Your task to perform on an android device: change the clock display to show seconds Image 0: 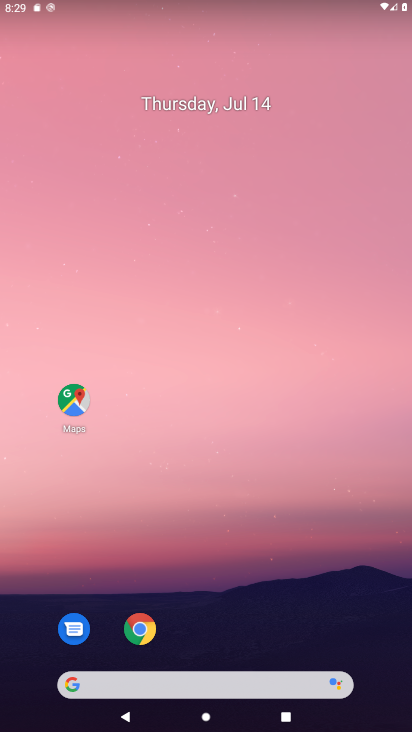
Step 0: drag from (229, 637) to (230, 2)
Your task to perform on an android device: change the clock display to show seconds Image 1: 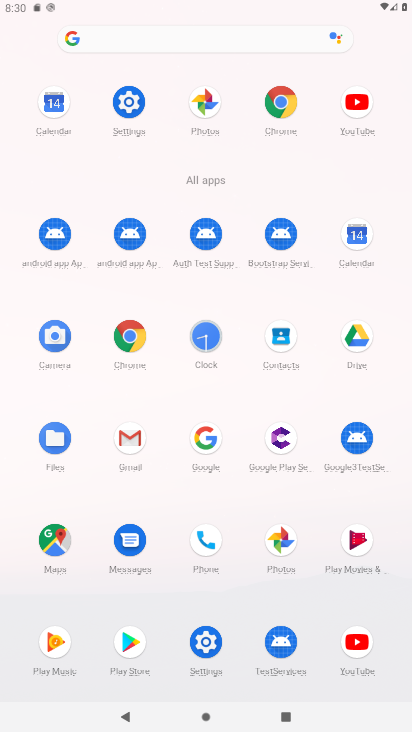
Step 1: click (212, 337)
Your task to perform on an android device: change the clock display to show seconds Image 2: 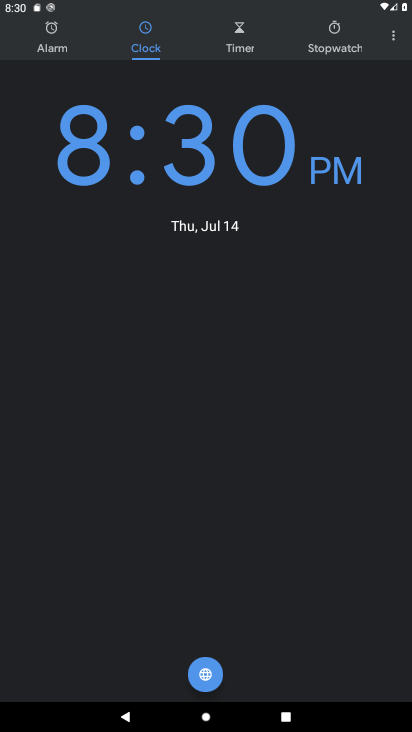
Step 2: click (397, 35)
Your task to perform on an android device: change the clock display to show seconds Image 3: 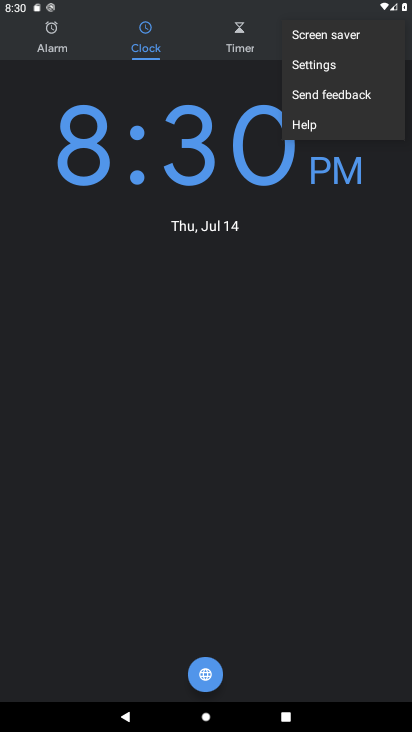
Step 3: click (315, 66)
Your task to perform on an android device: change the clock display to show seconds Image 4: 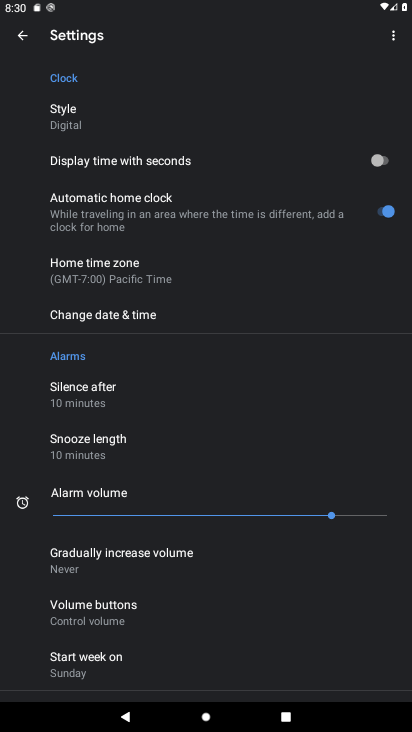
Step 4: click (67, 124)
Your task to perform on an android device: change the clock display to show seconds Image 5: 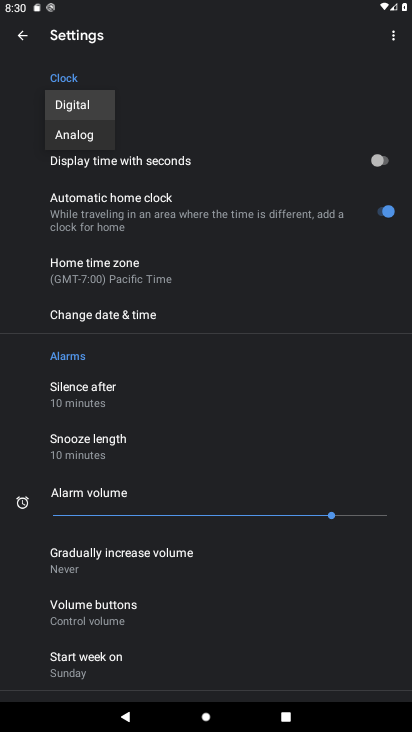
Step 5: click (392, 157)
Your task to perform on an android device: change the clock display to show seconds Image 6: 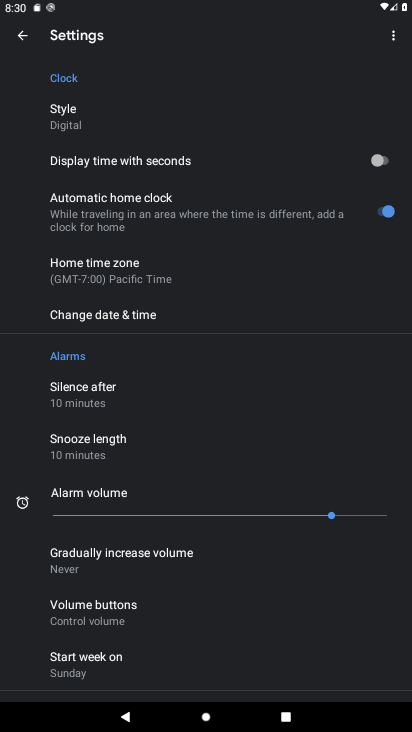
Step 6: click (390, 158)
Your task to perform on an android device: change the clock display to show seconds Image 7: 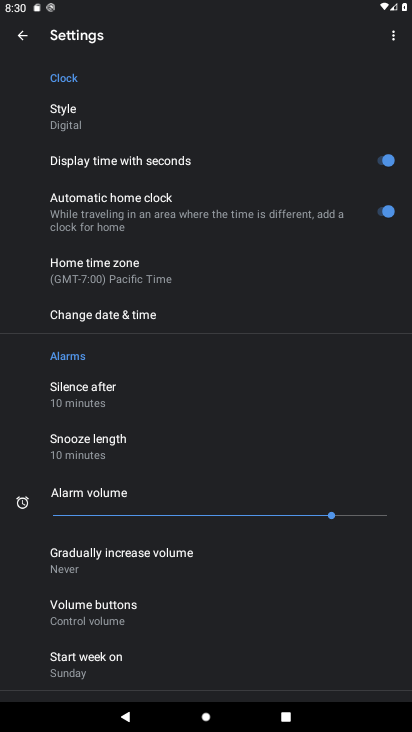
Step 7: task complete